Your task to perform on an android device: Go to internet settings Image 0: 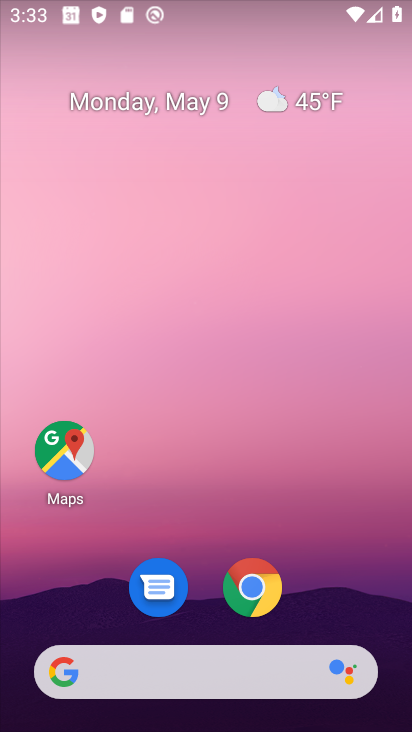
Step 0: drag from (365, 473) to (314, 304)
Your task to perform on an android device: Go to internet settings Image 1: 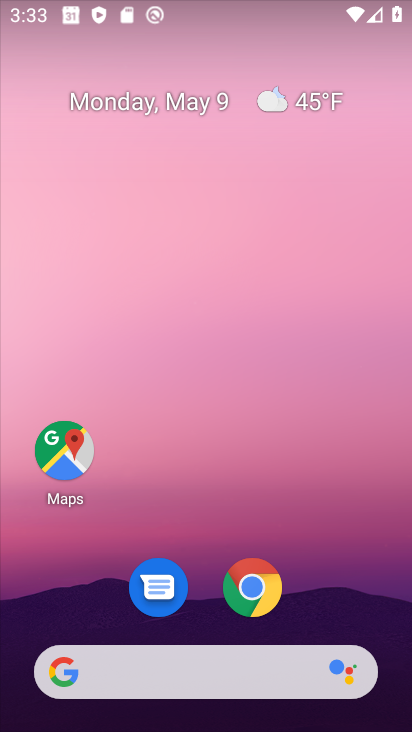
Step 1: drag from (402, 644) to (337, 165)
Your task to perform on an android device: Go to internet settings Image 2: 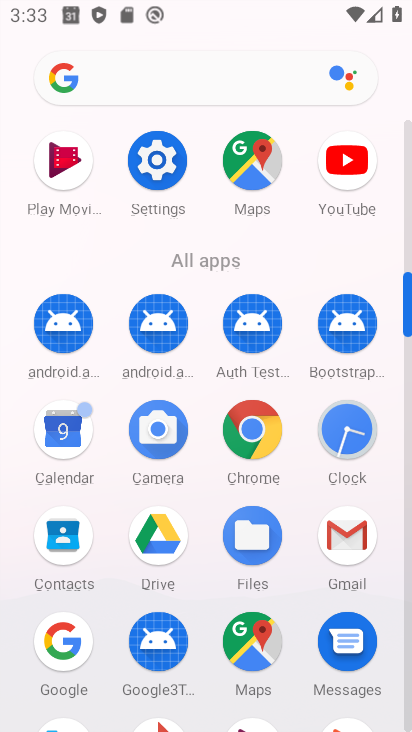
Step 2: click (155, 156)
Your task to perform on an android device: Go to internet settings Image 3: 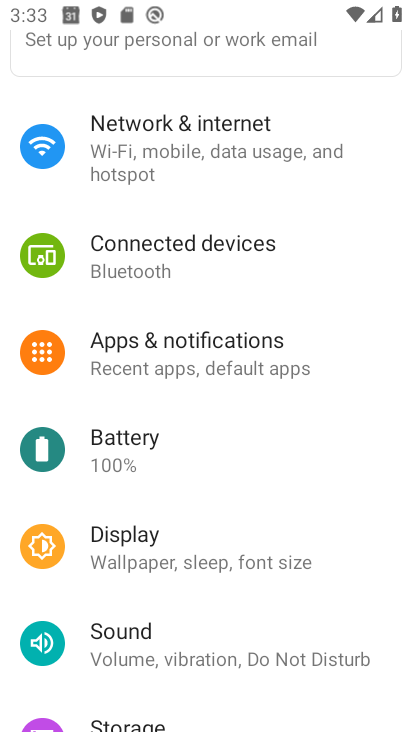
Step 3: click (140, 134)
Your task to perform on an android device: Go to internet settings Image 4: 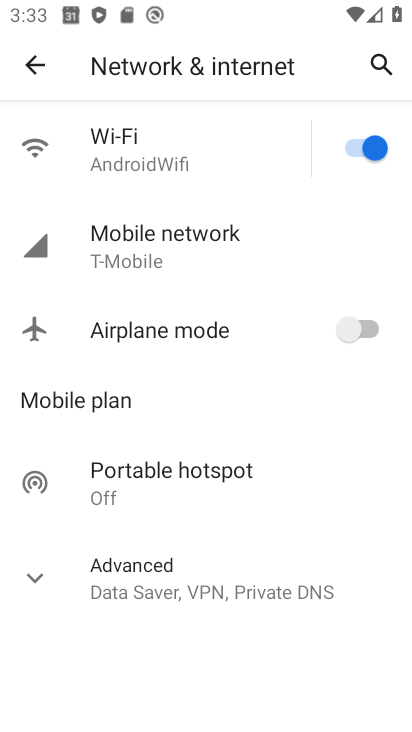
Step 4: click (120, 238)
Your task to perform on an android device: Go to internet settings Image 5: 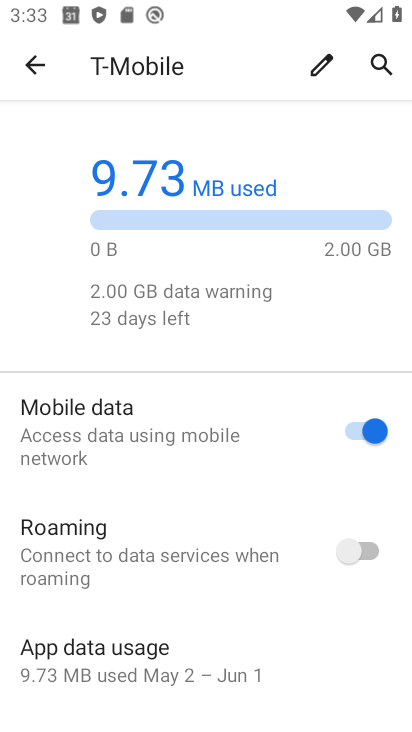
Step 5: task complete